Your task to perform on an android device: Open network settings Image 0: 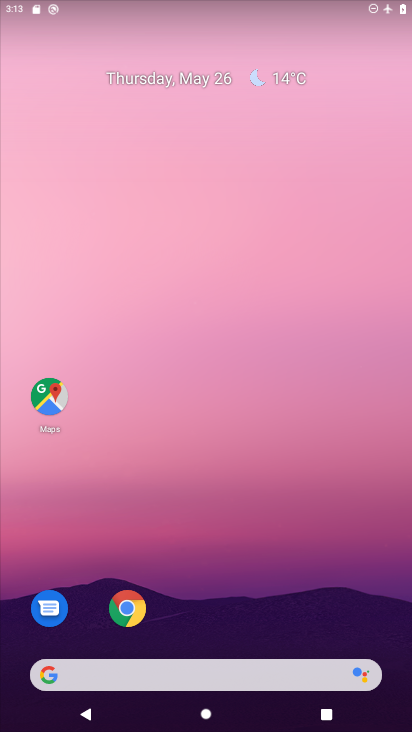
Step 0: drag from (260, 550) to (313, 82)
Your task to perform on an android device: Open network settings Image 1: 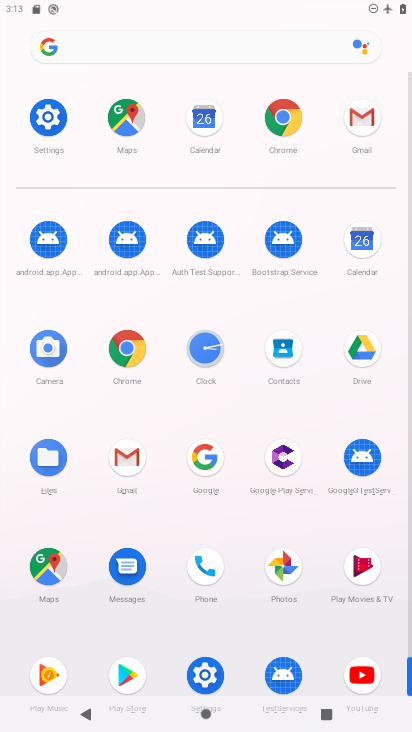
Step 1: click (41, 117)
Your task to perform on an android device: Open network settings Image 2: 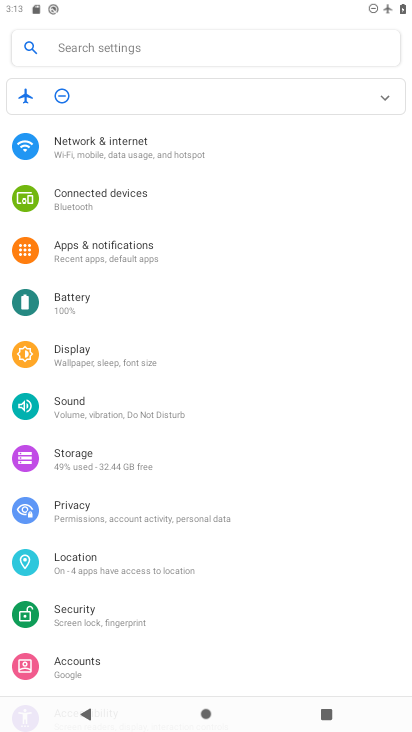
Step 2: click (63, 150)
Your task to perform on an android device: Open network settings Image 3: 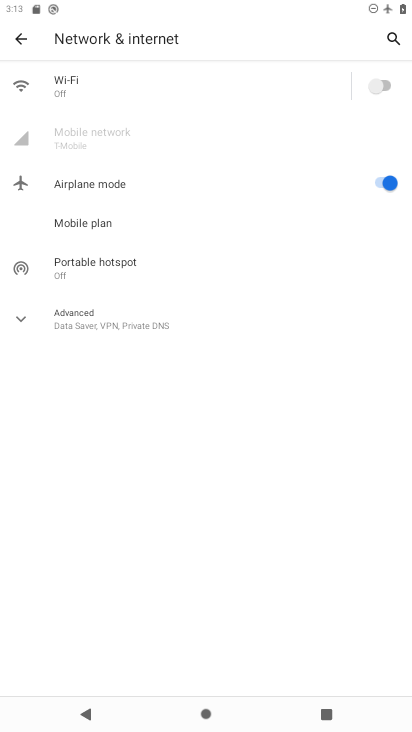
Step 3: task complete